Your task to perform on an android device: Go to Android settings Image 0: 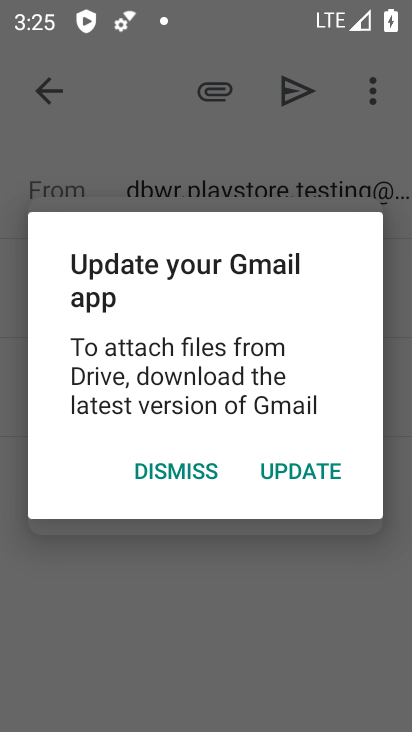
Step 0: press home button
Your task to perform on an android device: Go to Android settings Image 1: 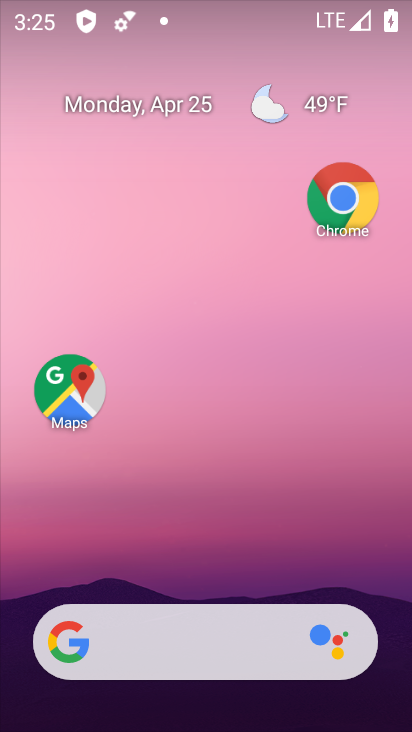
Step 1: drag from (128, 656) to (304, 43)
Your task to perform on an android device: Go to Android settings Image 2: 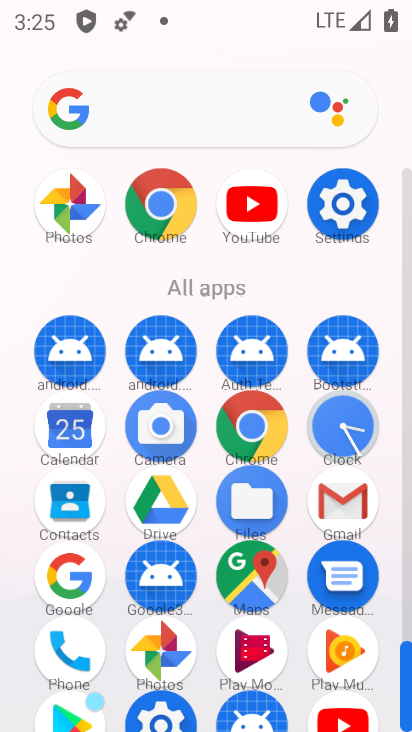
Step 2: click (336, 212)
Your task to perform on an android device: Go to Android settings Image 3: 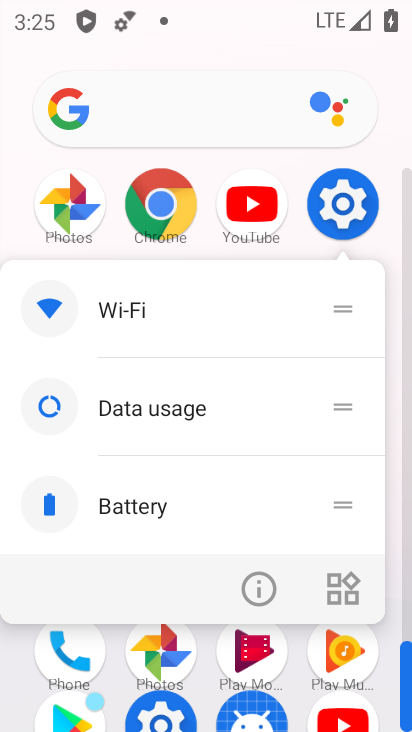
Step 3: click (333, 205)
Your task to perform on an android device: Go to Android settings Image 4: 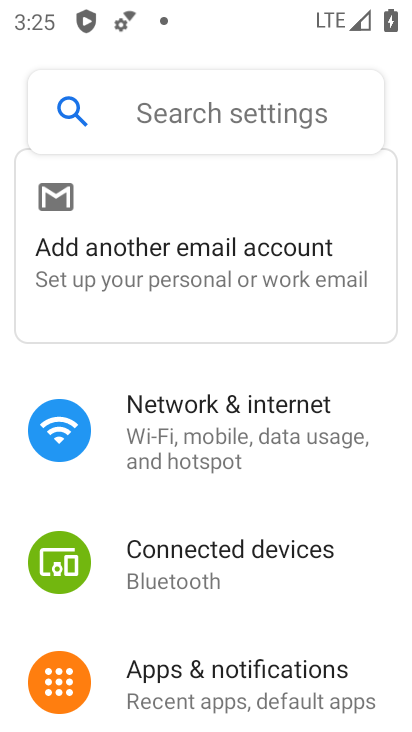
Step 4: task complete